Your task to perform on an android device: toggle translation in the chrome app Image 0: 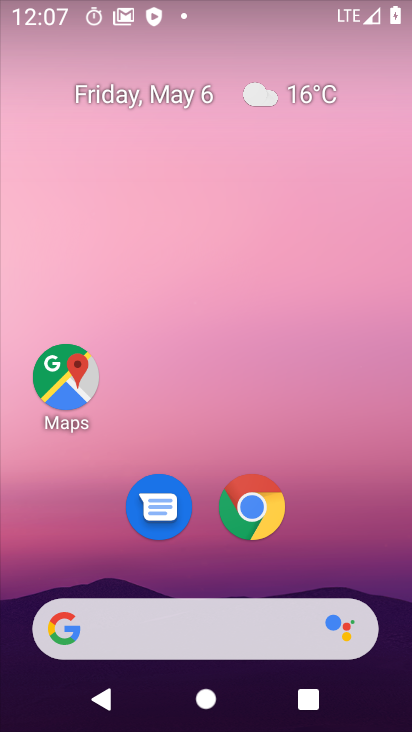
Step 0: click (245, 501)
Your task to perform on an android device: toggle translation in the chrome app Image 1: 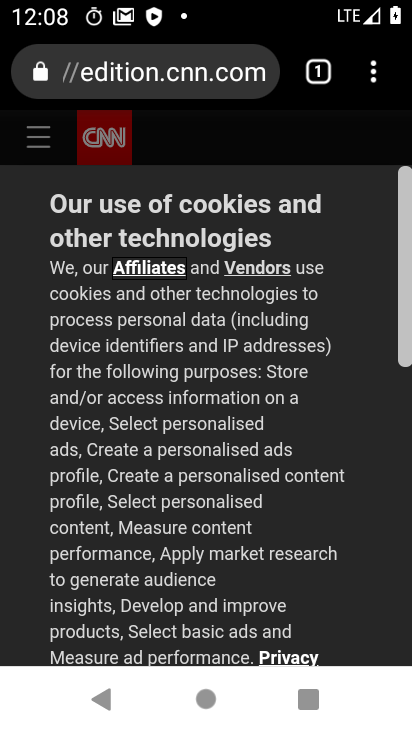
Step 1: drag from (374, 76) to (174, 495)
Your task to perform on an android device: toggle translation in the chrome app Image 2: 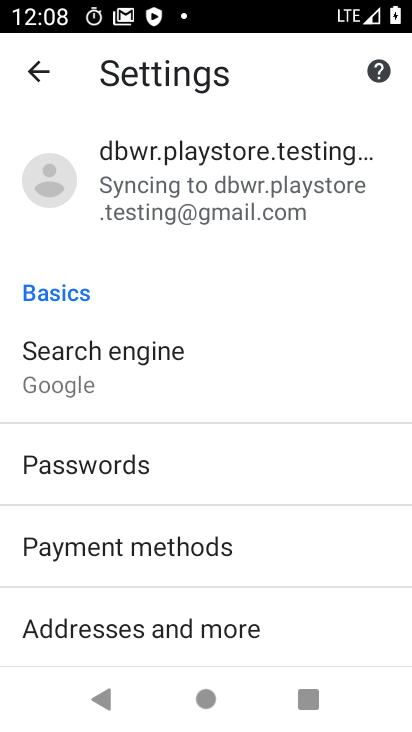
Step 2: drag from (147, 651) to (166, 251)
Your task to perform on an android device: toggle translation in the chrome app Image 3: 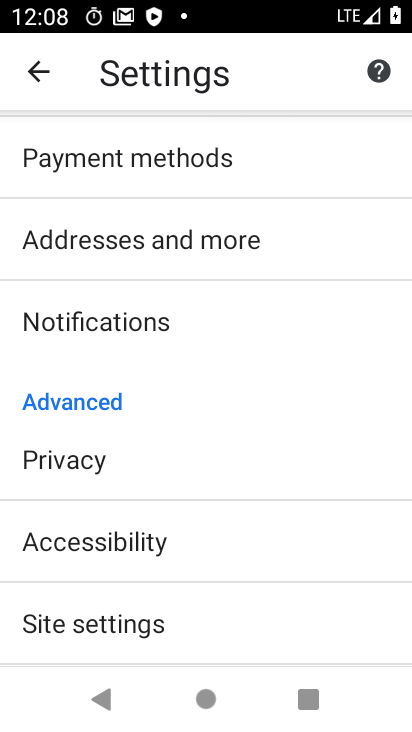
Step 3: drag from (179, 653) to (189, 458)
Your task to perform on an android device: toggle translation in the chrome app Image 4: 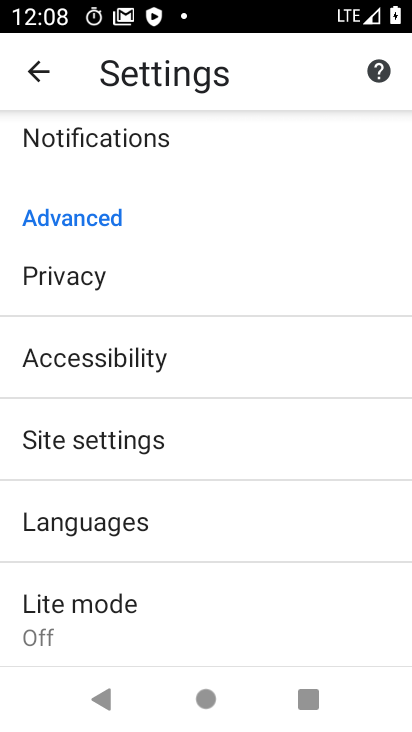
Step 4: click (135, 521)
Your task to perform on an android device: toggle translation in the chrome app Image 5: 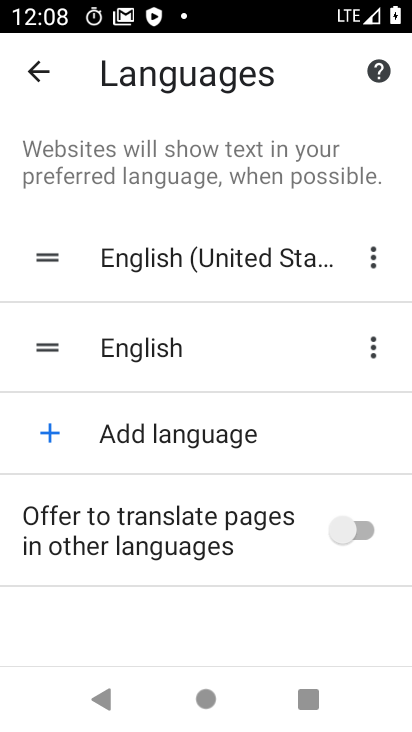
Step 5: click (366, 529)
Your task to perform on an android device: toggle translation in the chrome app Image 6: 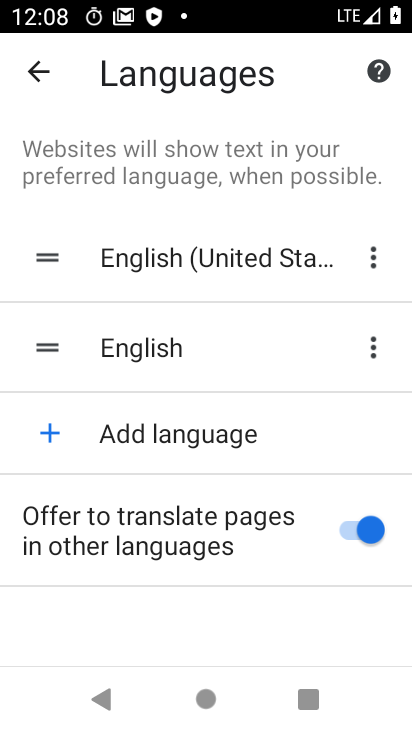
Step 6: task complete